Your task to perform on an android device: Is it going to rain this weekend? Image 0: 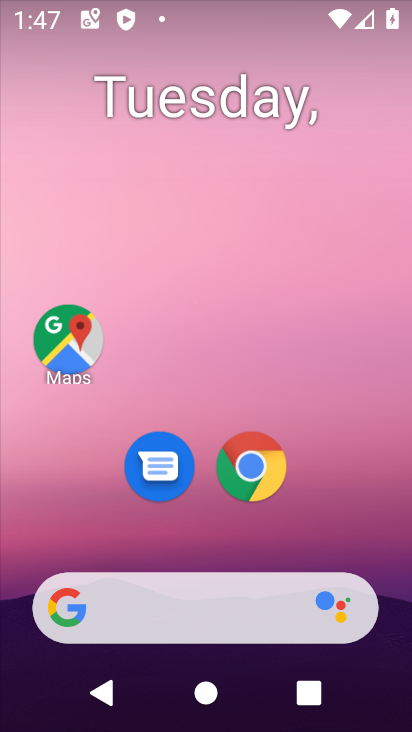
Step 0: drag from (375, 521) to (384, 350)
Your task to perform on an android device: Is it going to rain this weekend? Image 1: 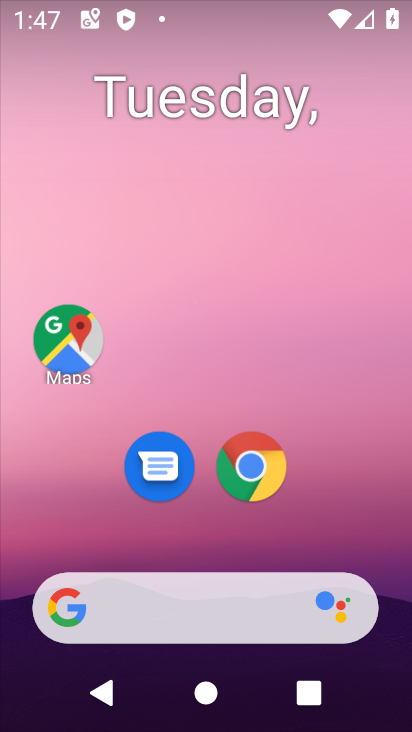
Step 1: drag from (350, 541) to (343, 382)
Your task to perform on an android device: Is it going to rain this weekend? Image 2: 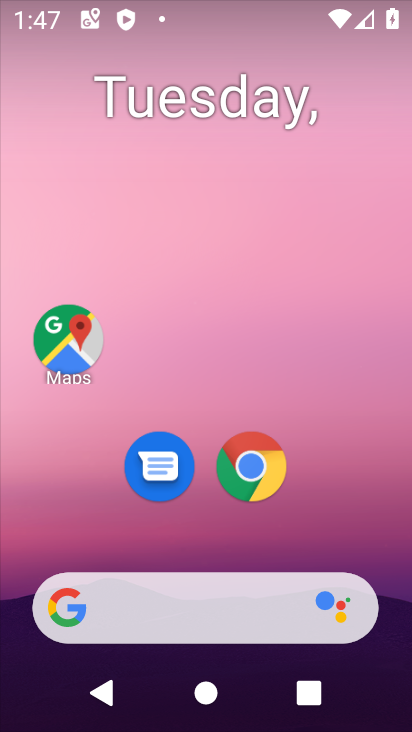
Step 2: drag from (385, 548) to (291, 131)
Your task to perform on an android device: Is it going to rain this weekend? Image 3: 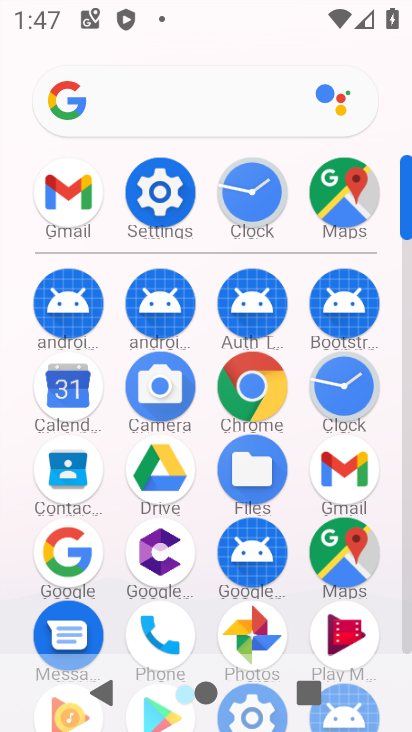
Step 3: click (184, 186)
Your task to perform on an android device: Is it going to rain this weekend? Image 4: 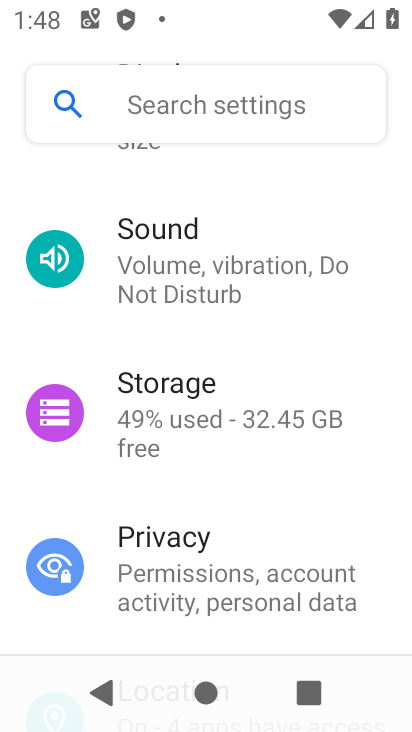
Step 4: press home button
Your task to perform on an android device: Is it going to rain this weekend? Image 5: 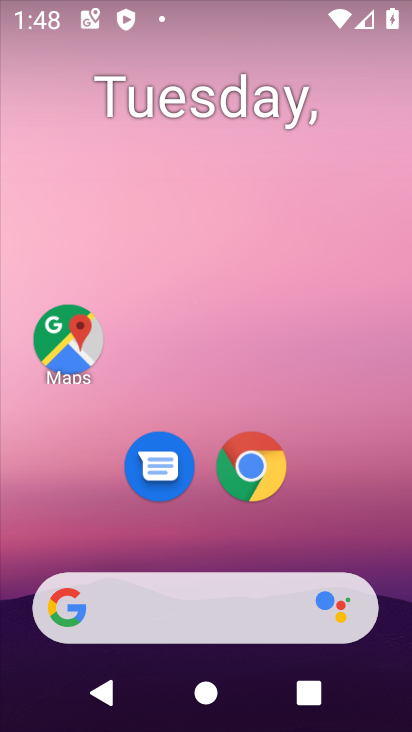
Step 5: click (220, 599)
Your task to perform on an android device: Is it going to rain this weekend? Image 6: 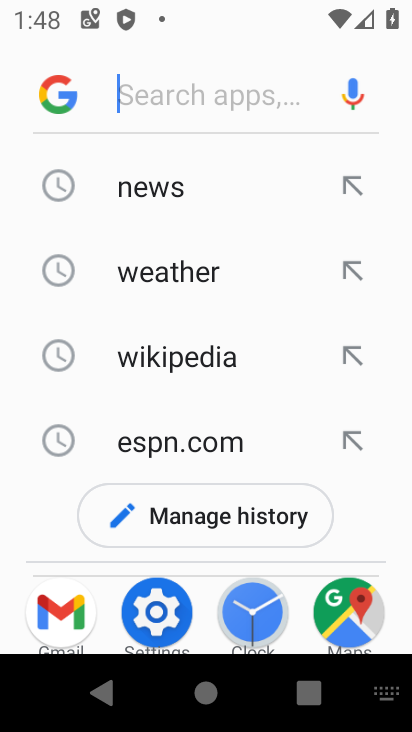
Step 6: click (175, 271)
Your task to perform on an android device: Is it going to rain this weekend? Image 7: 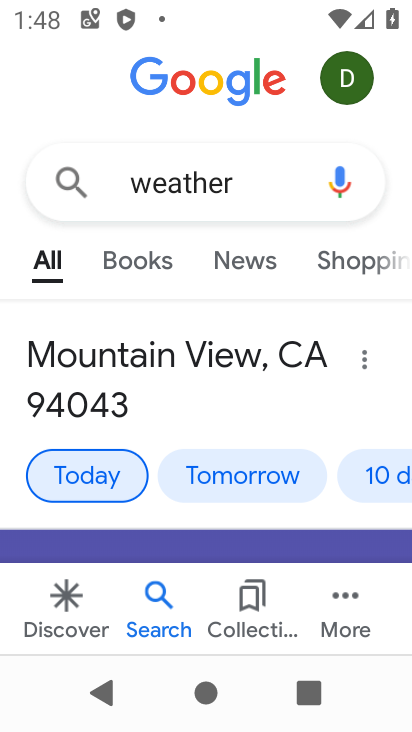
Step 7: task complete